Your task to perform on an android device: What's the weather today? Image 0: 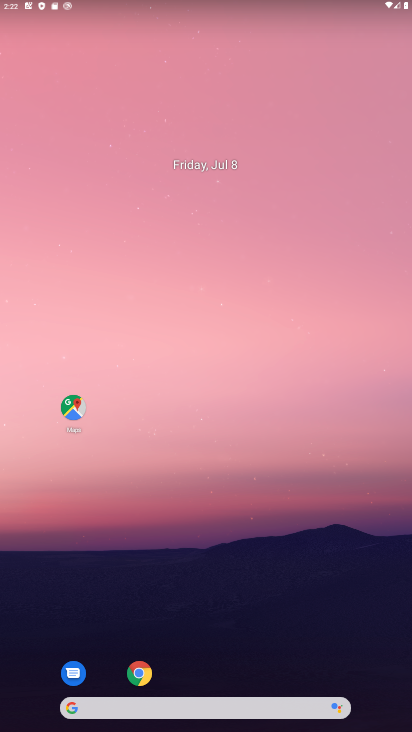
Step 0: drag from (181, 667) to (194, 244)
Your task to perform on an android device: What's the weather today? Image 1: 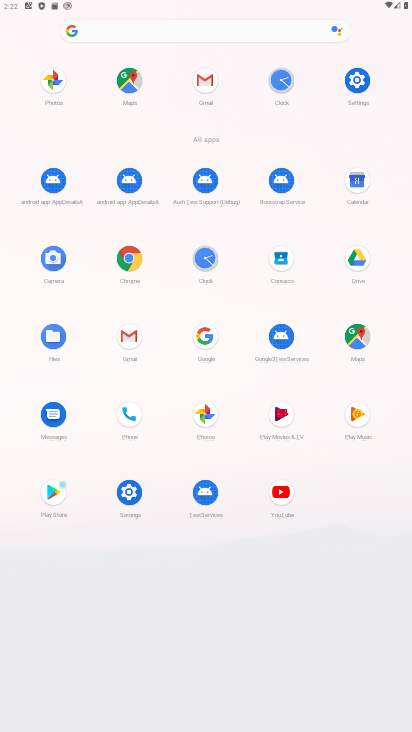
Step 1: click (207, 339)
Your task to perform on an android device: What's the weather today? Image 2: 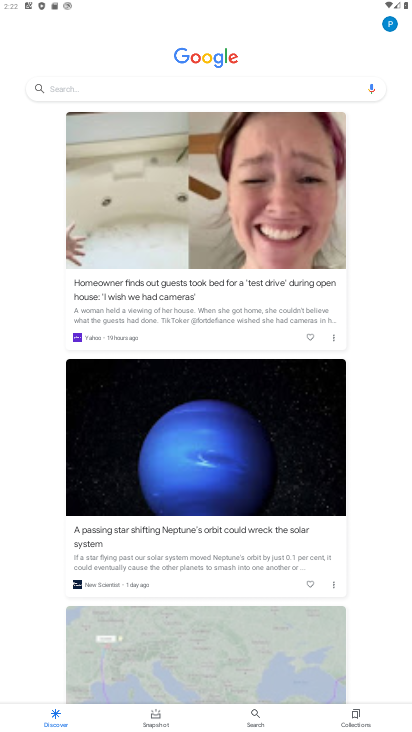
Step 2: click (139, 80)
Your task to perform on an android device: What's the weather today? Image 3: 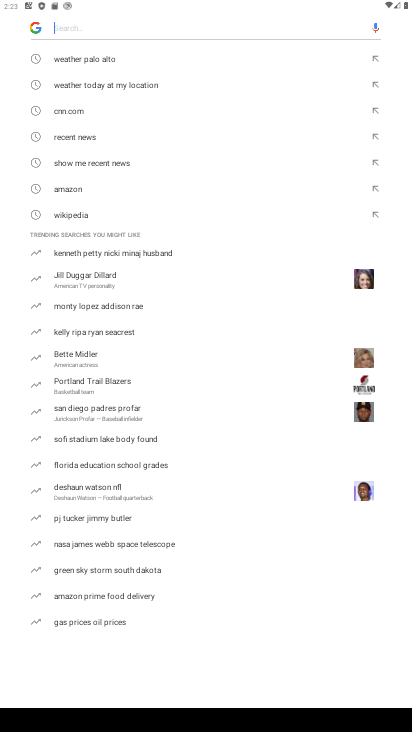
Step 3: click (70, 86)
Your task to perform on an android device: What's the weather today? Image 4: 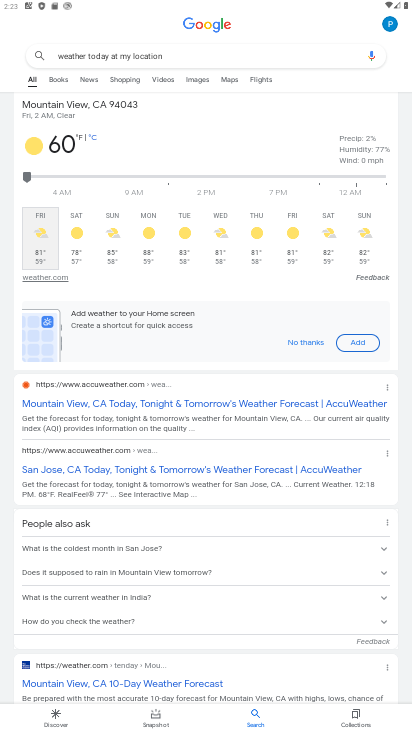
Step 4: task complete